Your task to perform on an android device: change keyboard looks Image 0: 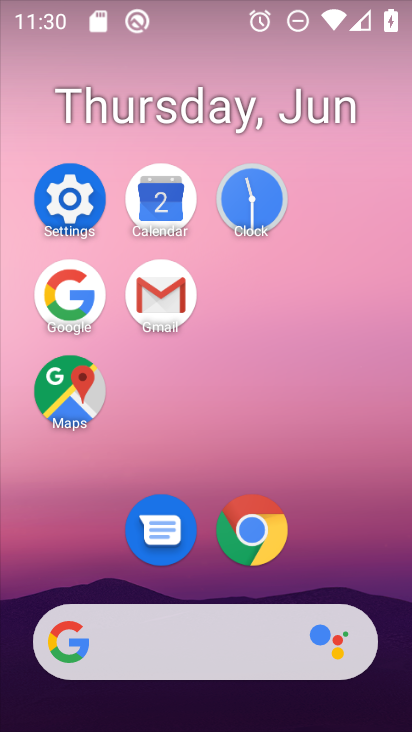
Step 0: click (79, 203)
Your task to perform on an android device: change keyboard looks Image 1: 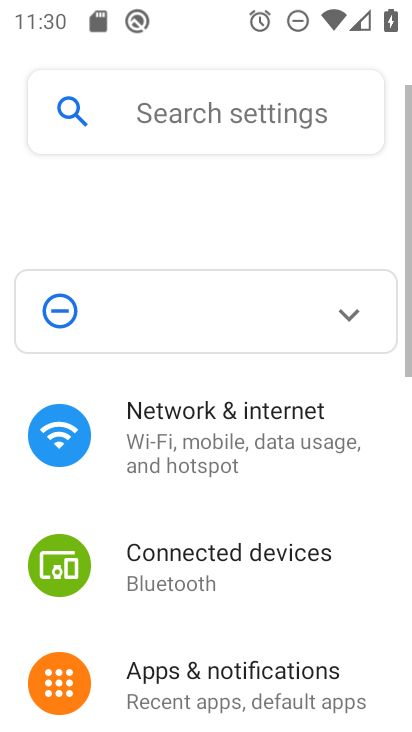
Step 1: drag from (299, 635) to (302, 220)
Your task to perform on an android device: change keyboard looks Image 2: 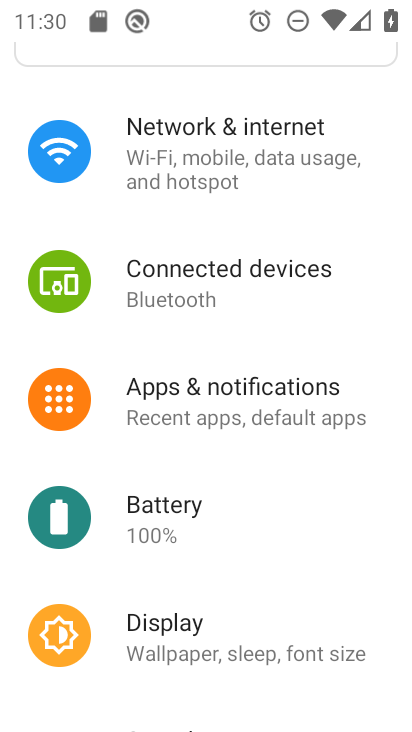
Step 2: drag from (306, 621) to (294, 209)
Your task to perform on an android device: change keyboard looks Image 3: 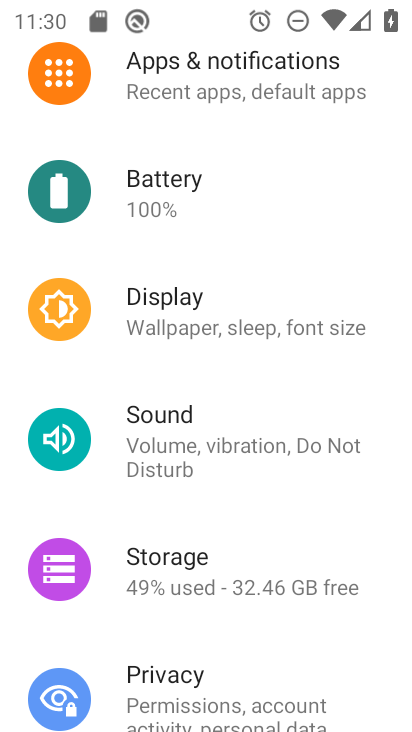
Step 3: drag from (235, 606) to (218, 260)
Your task to perform on an android device: change keyboard looks Image 4: 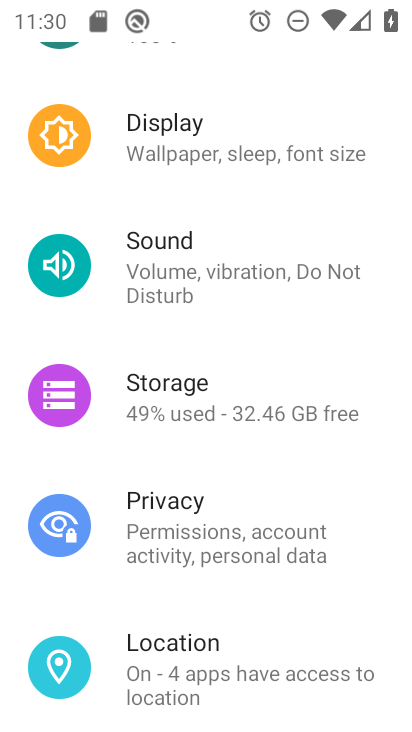
Step 4: drag from (242, 605) to (237, 257)
Your task to perform on an android device: change keyboard looks Image 5: 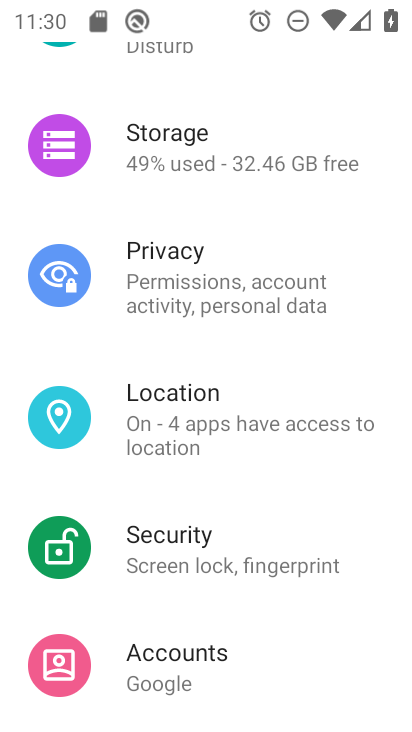
Step 5: drag from (245, 598) to (242, 260)
Your task to perform on an android device: change keyboard looks Image 6: 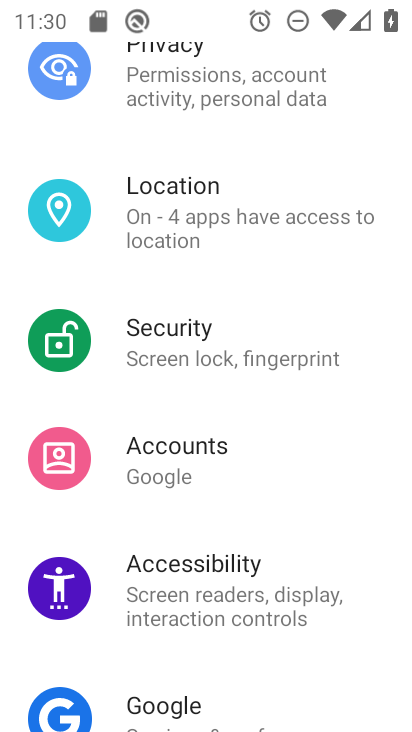
Step 6: drag from (222, 668) to (237, 282)
Your task to perform on an android device: change keyboard looks Image 7: 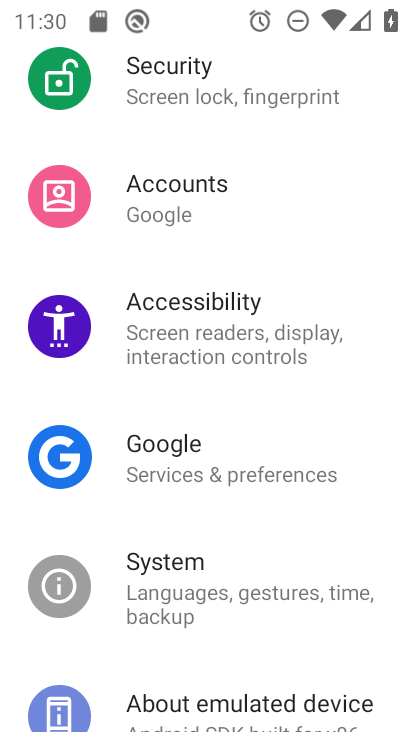
Step 7: click (230, 584)
Your task to perform on an android device: change keyboard looks Image 8: 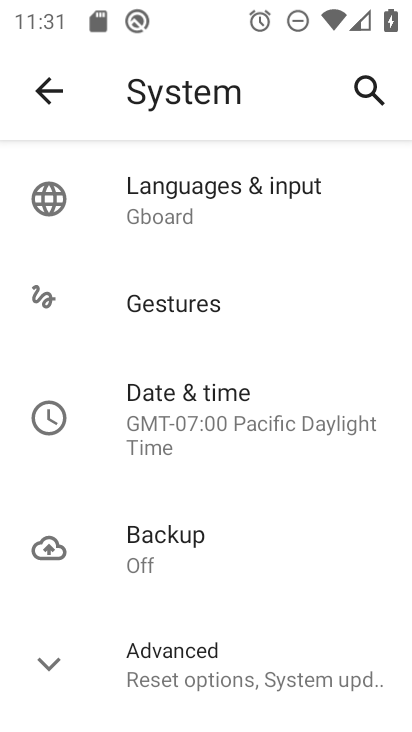
Step 8: click (215, 201)
Your task to perform on an android device: change keyboard looks Image 9: 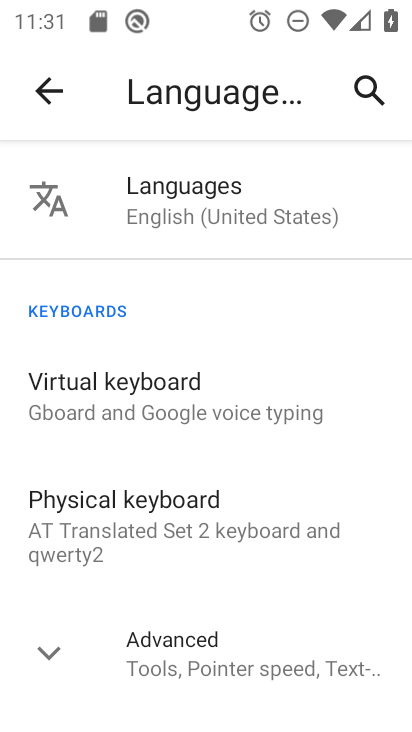
Step 9: click (191, 423)
Your task to perform on an android device: change keyboard looks Image 10: 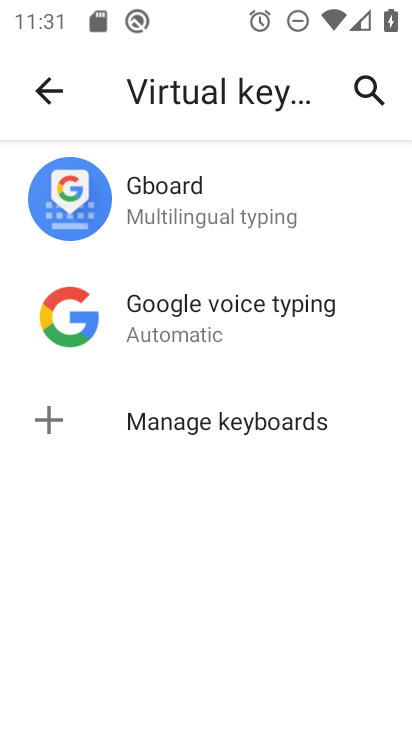
Step 10: click (176, 221)
Your task to perform on an android device: change keyboard looks Image 11: 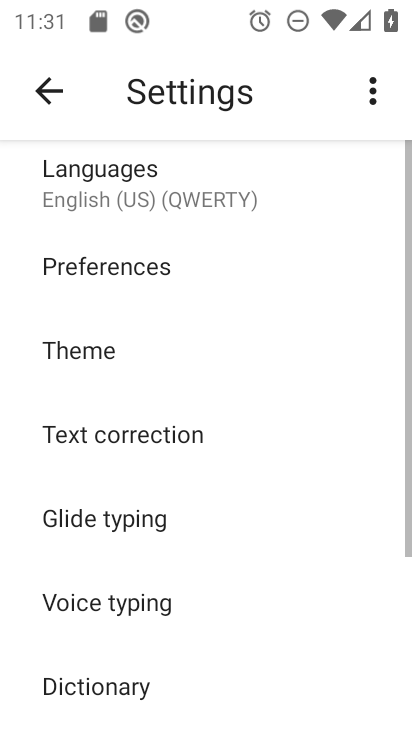
Step 11: click (128, 358)
Your task to perform on an android device: change keyboard looks Image 12: 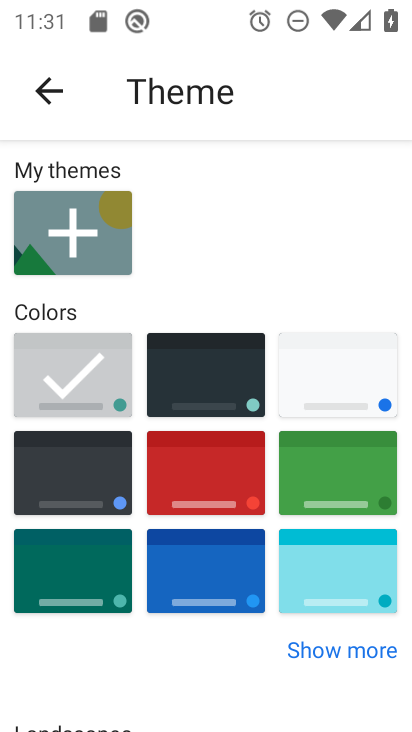
Step 12: click (234, 382)
Your task to perform on an android device: change keyboard looks Image 13: 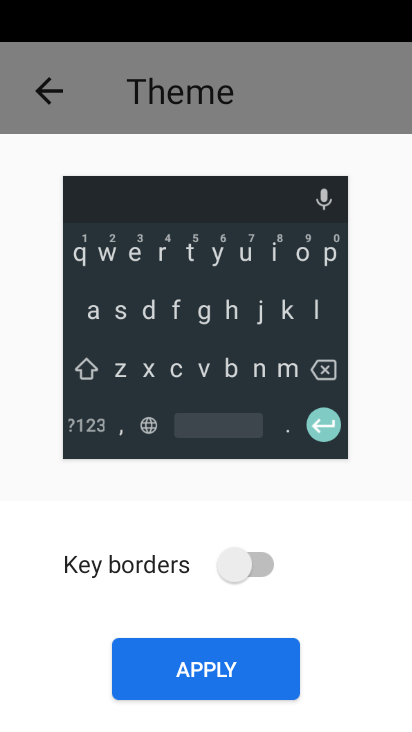
Step 13: click (239, 574)
Your task to perform on an android device: change keyboard looks Image 14: 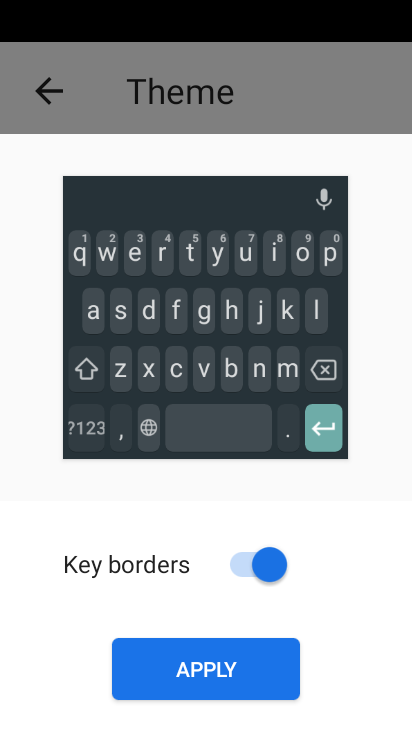
Step 14: click (249, 664)
Your task to perform on an android device: change keyboard looks Image 15: 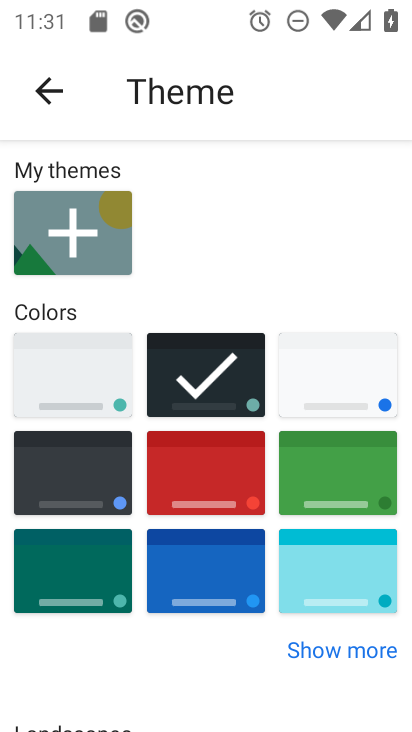
Step 15: task complete